Your task to perform on an android device: open app "Life360: Find Family & Friends" Image 0: 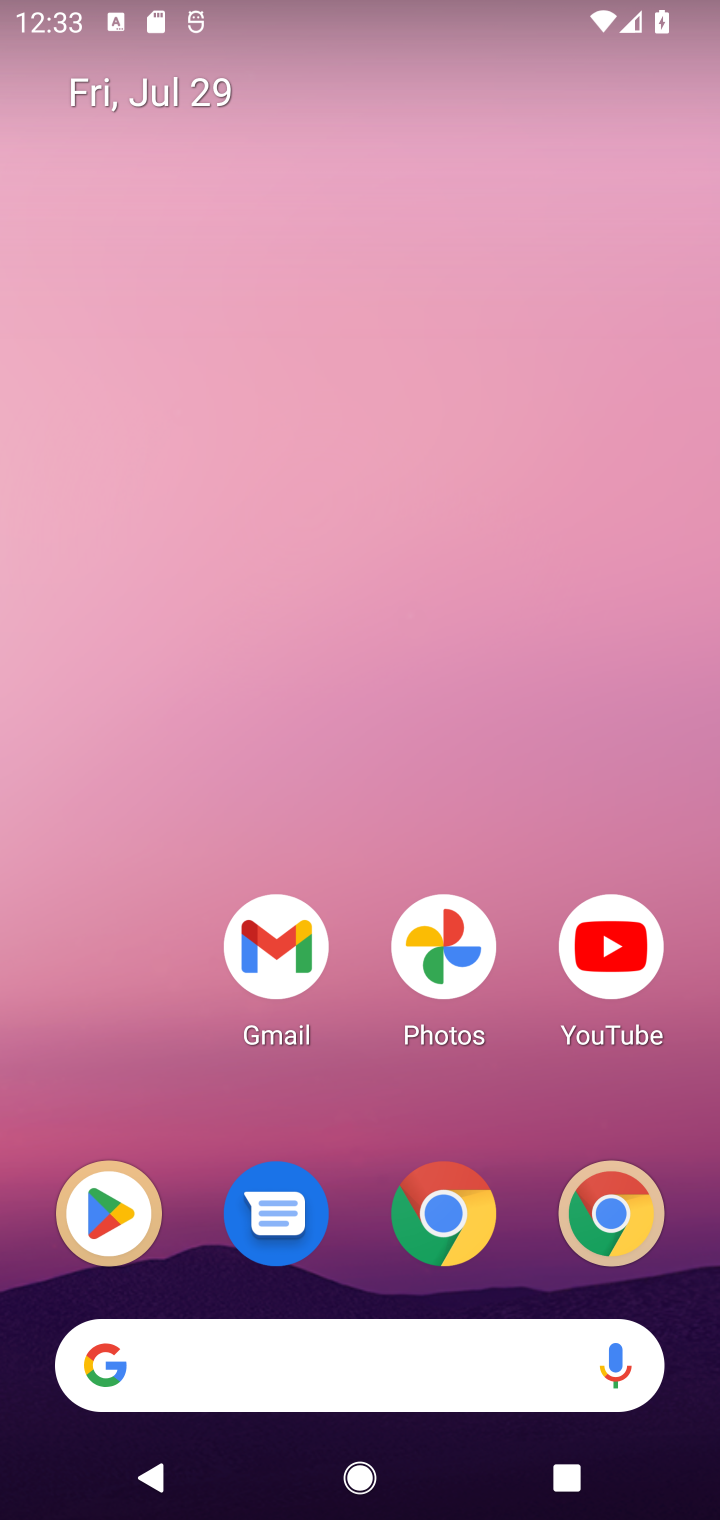
Step 0: drag from (392, 1086) to (318, 115)
Your task to perform on an android device: open app "Life360: Find Family & Friends" Image 1: 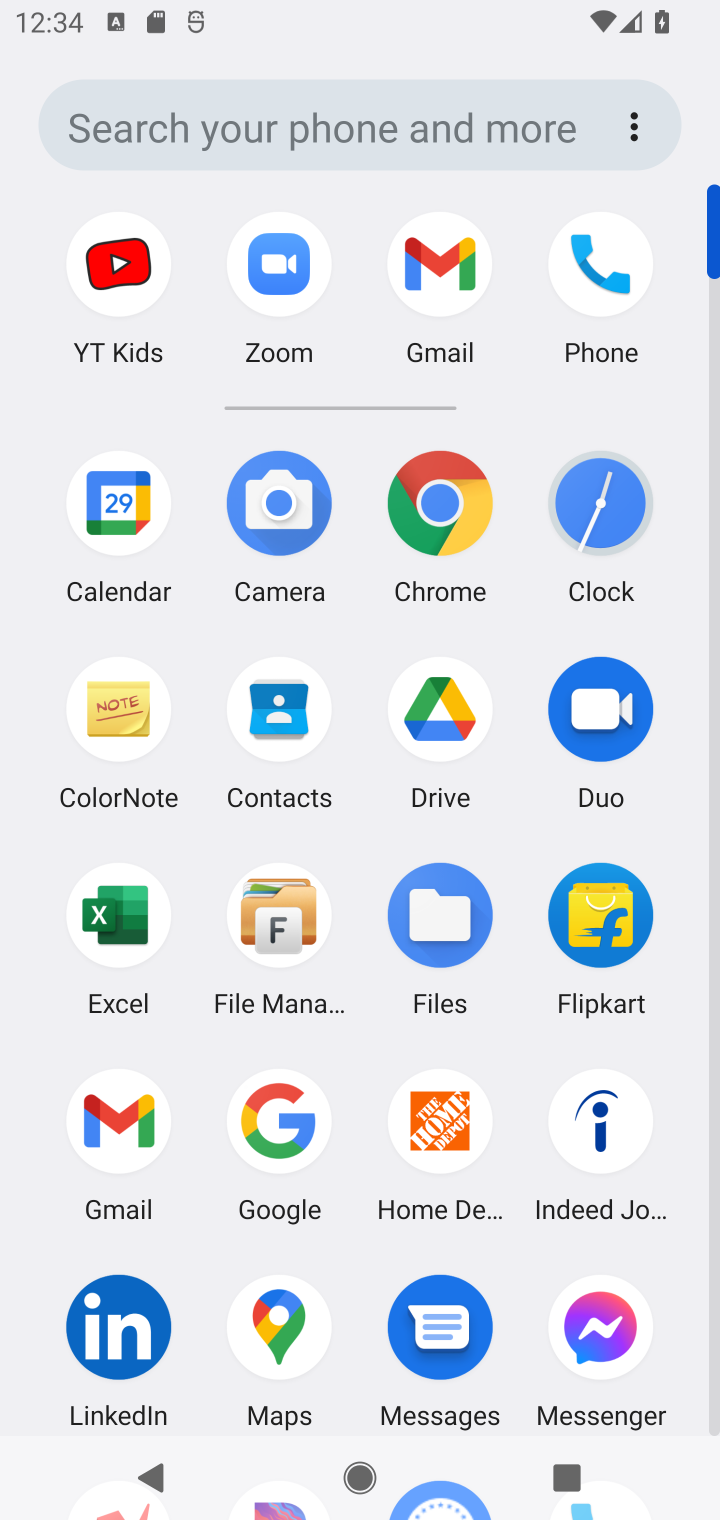
Step 1: drag from (519, 1321) to (522, 418)
Your task to perform on an android device: open app "Life360: Find Family & Friends" Image 2: 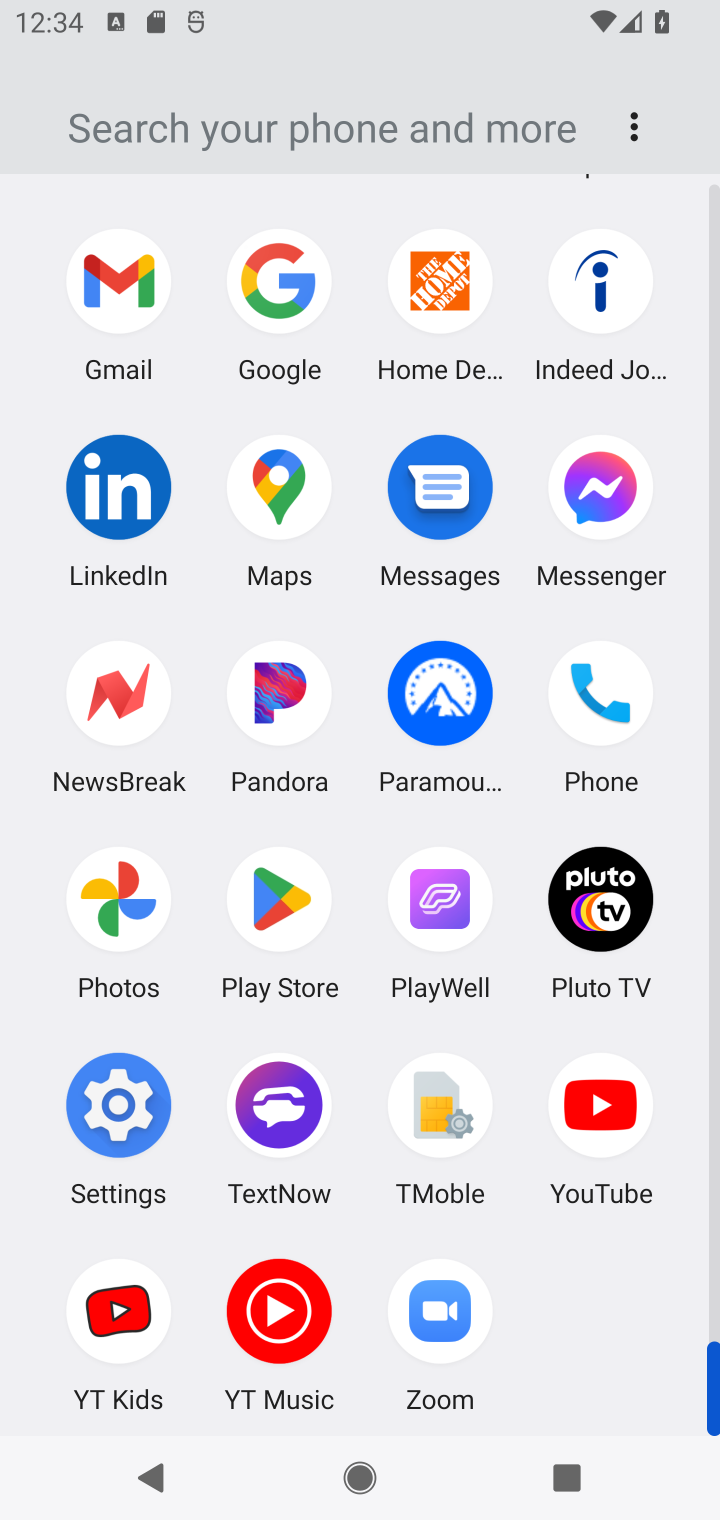
Step 2: click (283, 906)
Your task to perform on an android device: open app "Life360: Find Family & Friends" Image 3: 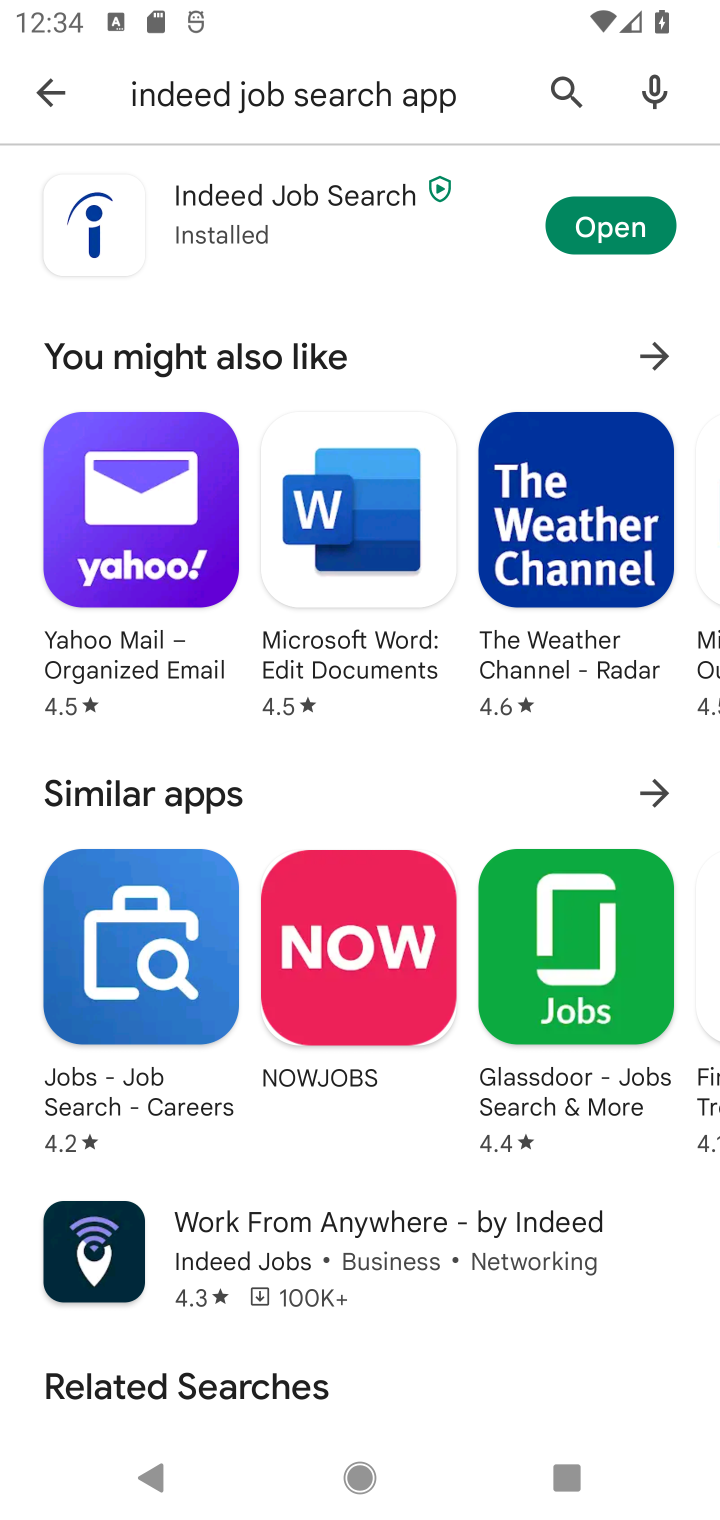
Step 3: click (562, 94)
Your task to perform on an android device: open app "Life360: Find Family & Friends" Image 4: 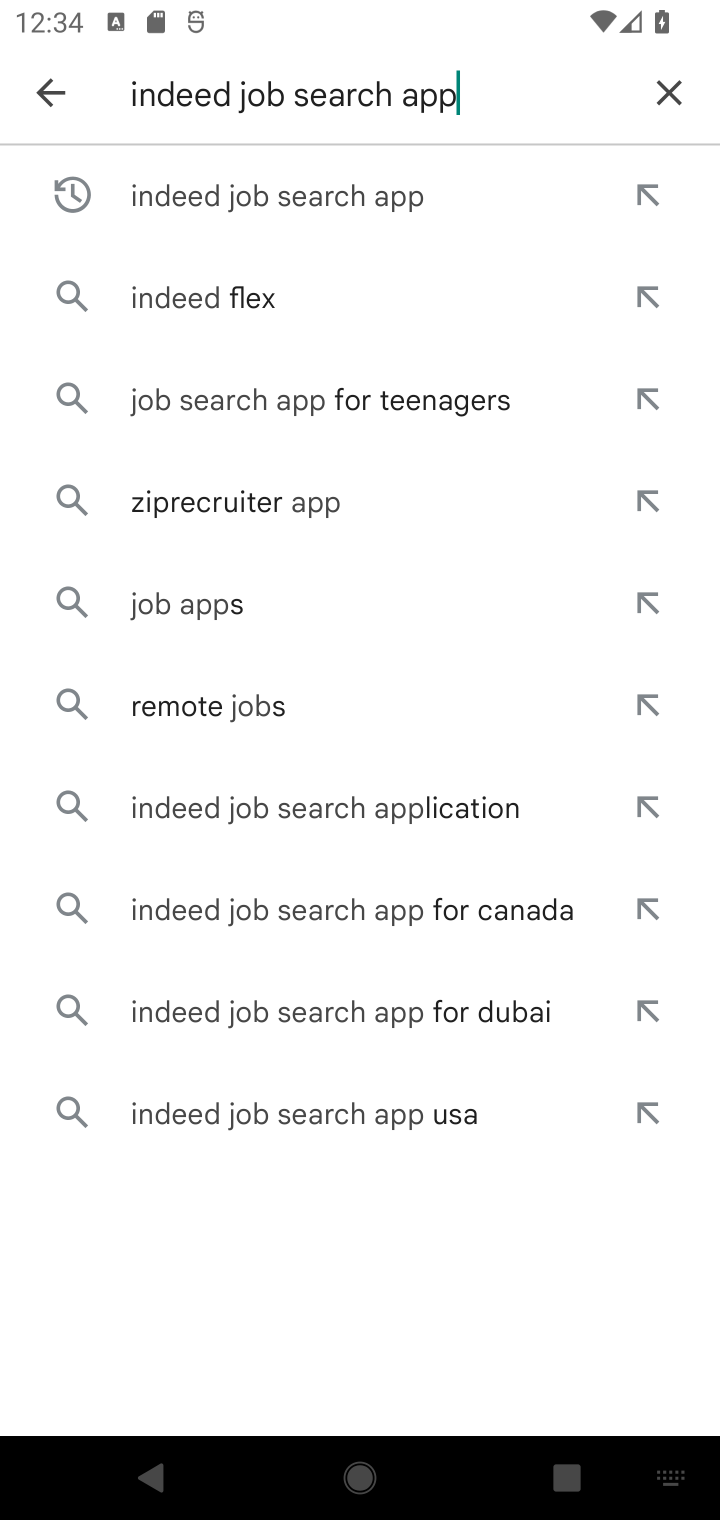
Step 4: click (683, 77)
Your task to perform on an android device: open app "Life360: Find Family & Friends" Image 5: 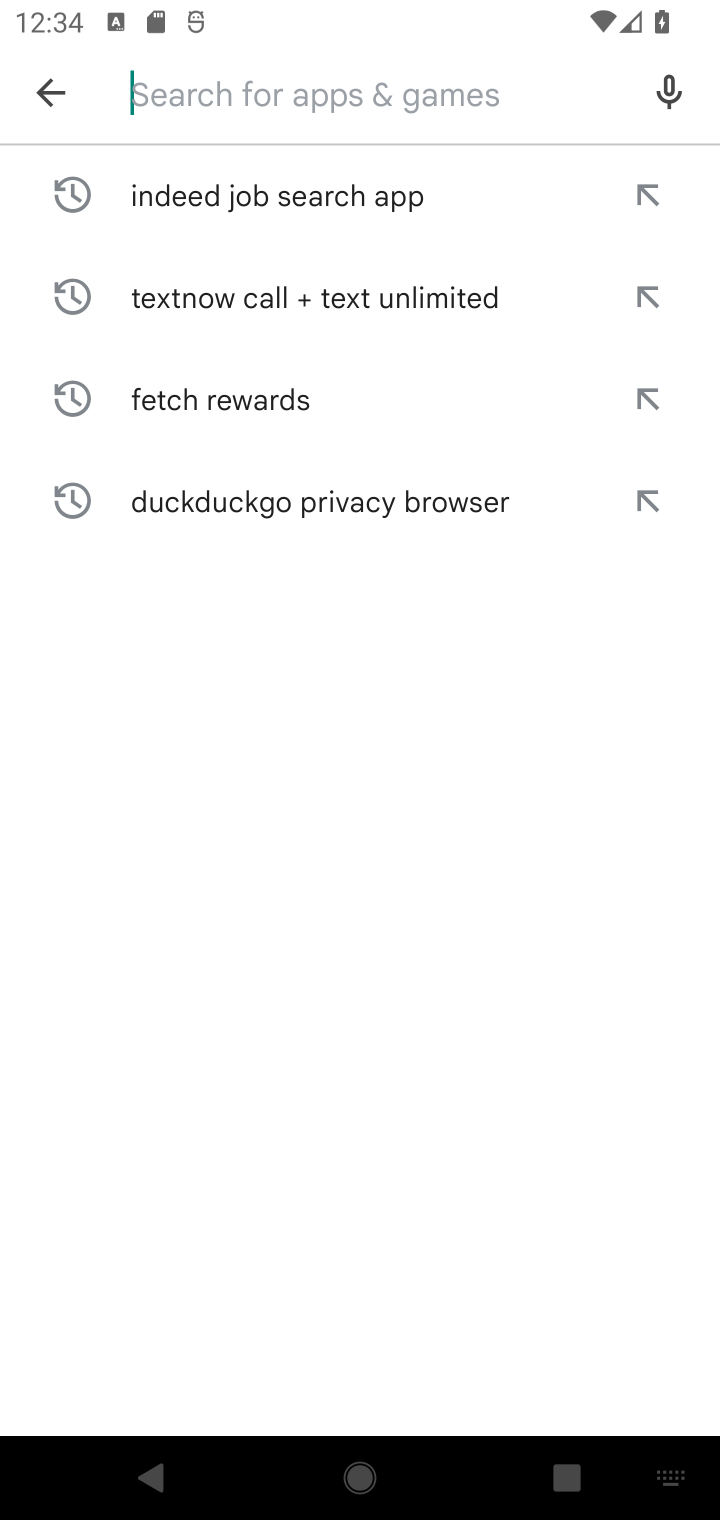
Step 5: type "Life360: Find Family & Friends"
Your task to perform on an android device: open app "Life360: Find Family & Friends" Image 6: 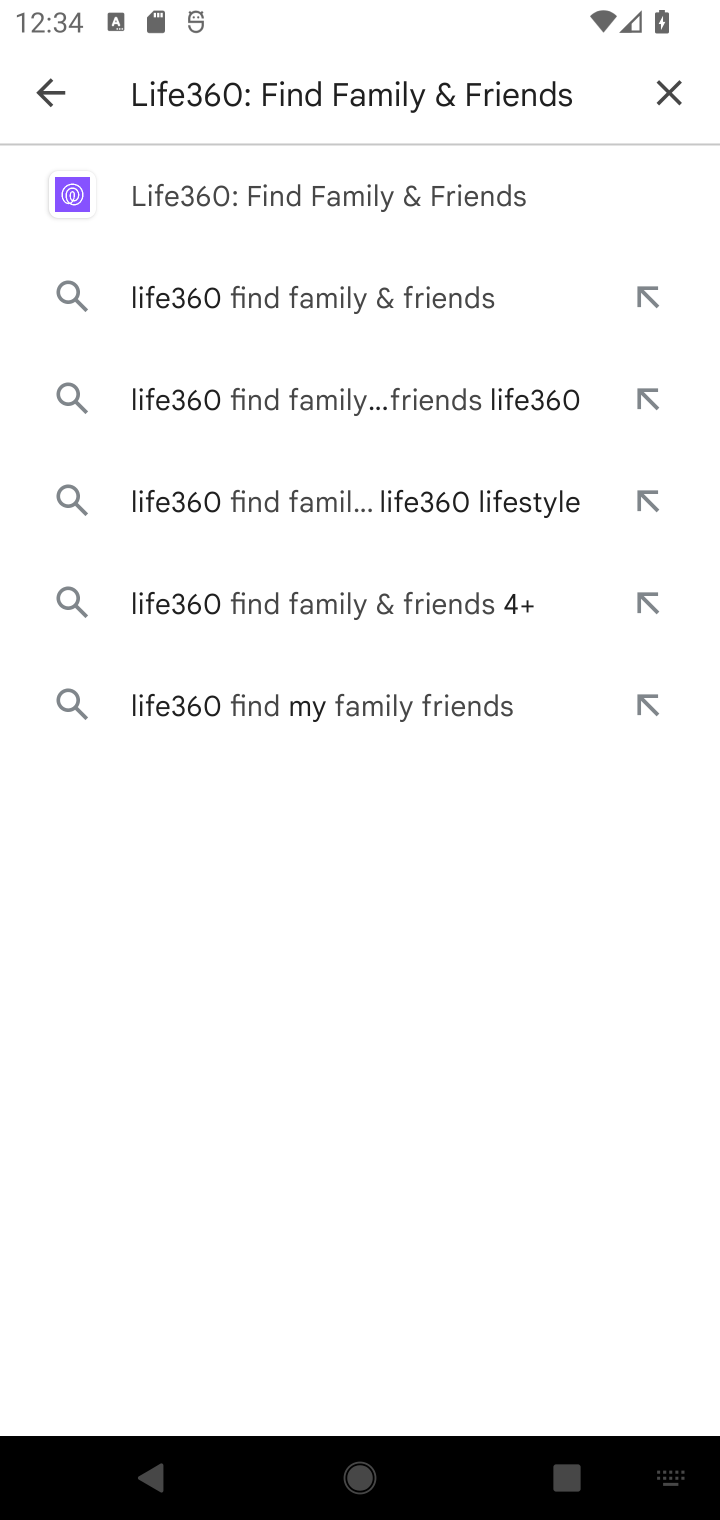
Step 6: click (293, 205)
Your task to perform on an android device: open app "Life360: Find Family & Friends" Image 7: 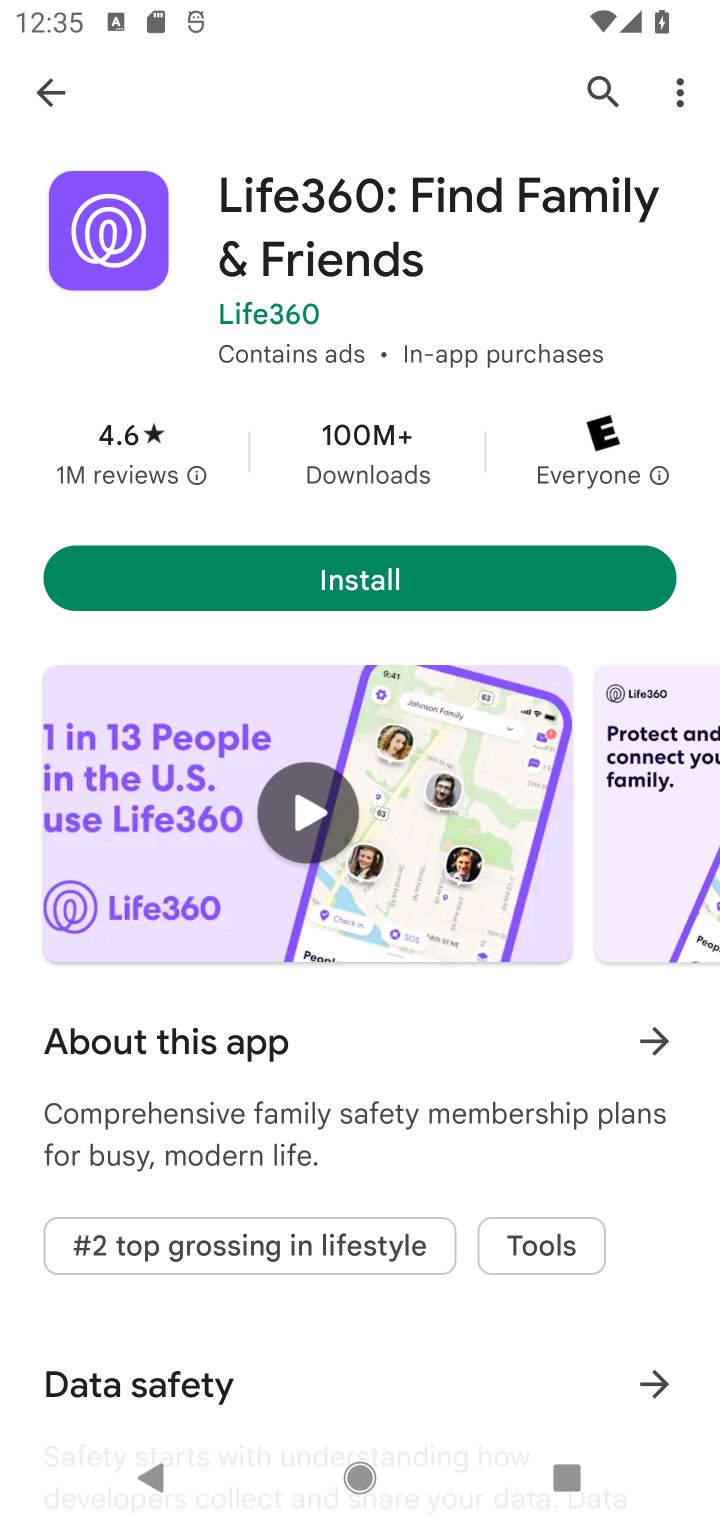
Step 7: task complete